Your task to perform on an android device: Search for 35 best books of all time Image 0: 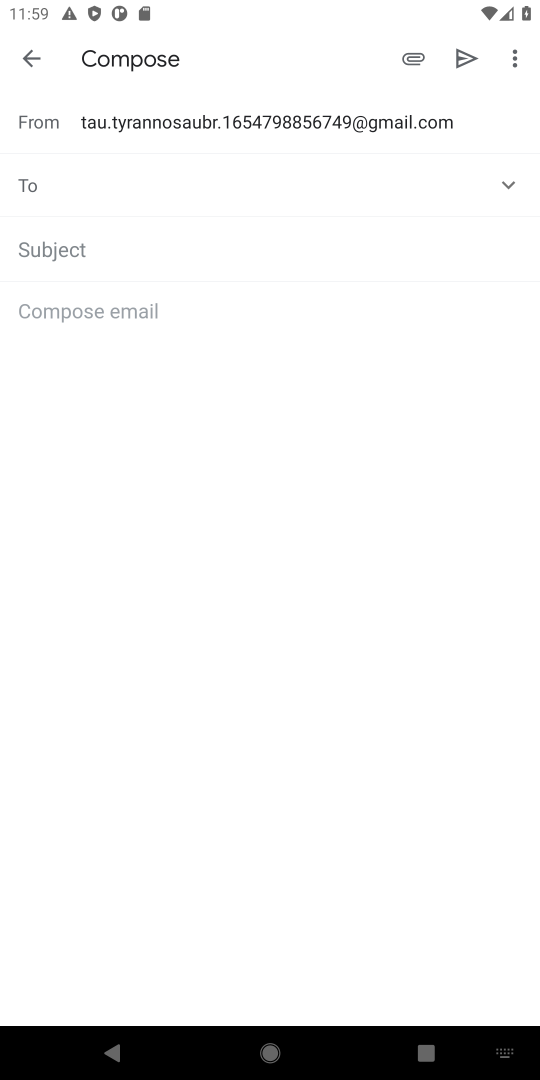
Step 0: press home button
Your task to perform on an android device: Search for 35 best books of all time Image 1: 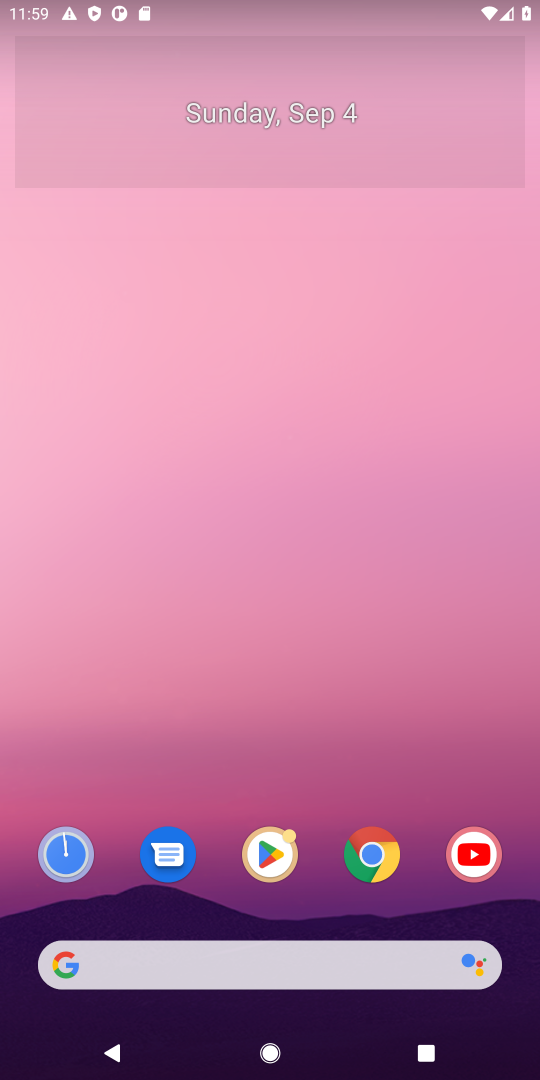
Step 1: click (295, 964)
Your task to perform on an android device: Search for 35 best books of all time Image 2: 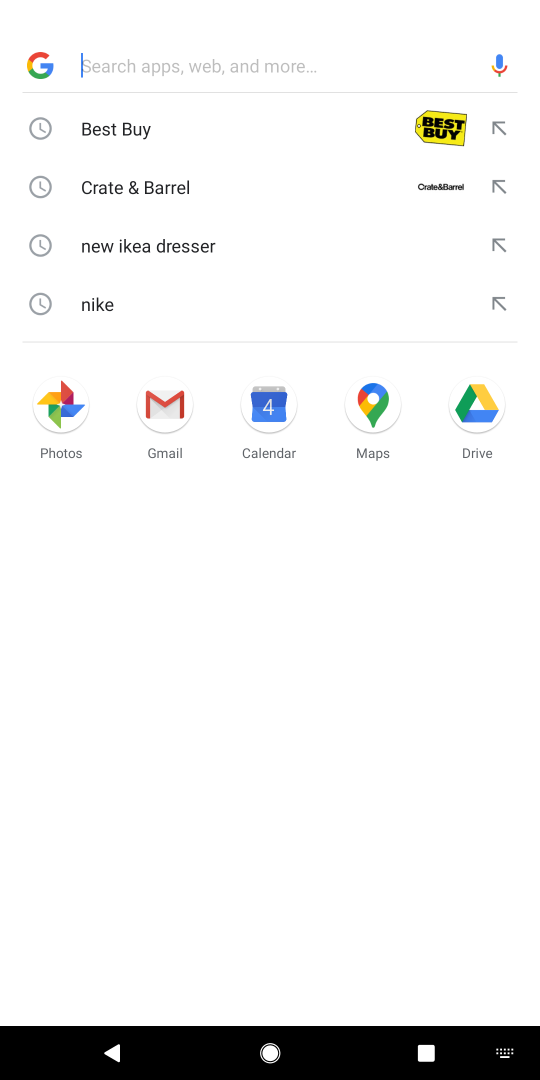
Step 2: type "35 best books of all times"
Your task to perform on an android device: Search for 35 best books of all time Image 3: 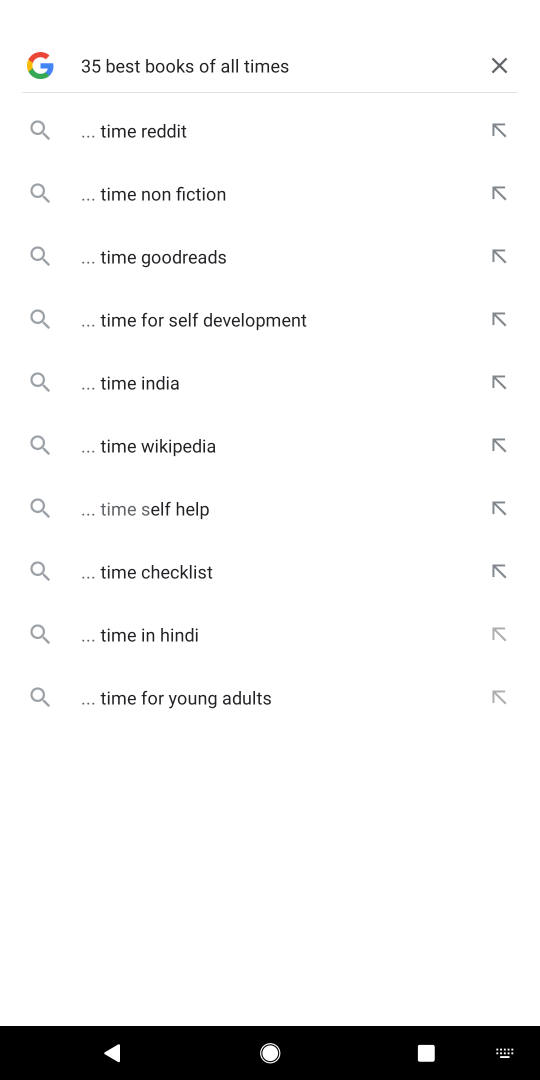
Step 3: press enter
Your task to perform on an android device: Search for 35 best books of all time Image 4: 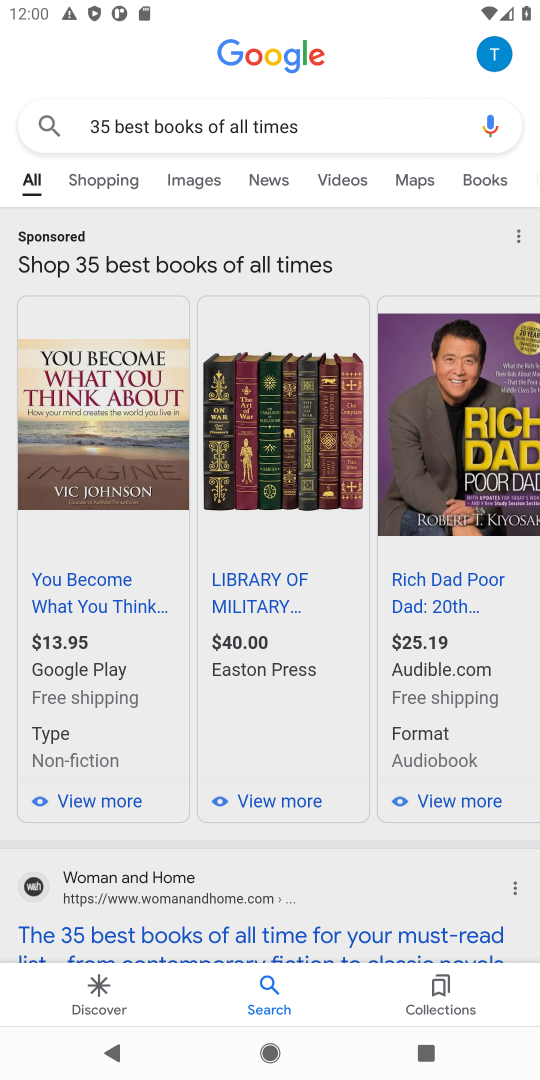
Step 4: drag from (397, 859) to (413, 499)
Your task to perform on an android device: Search for 35 best books of all time Image 5: 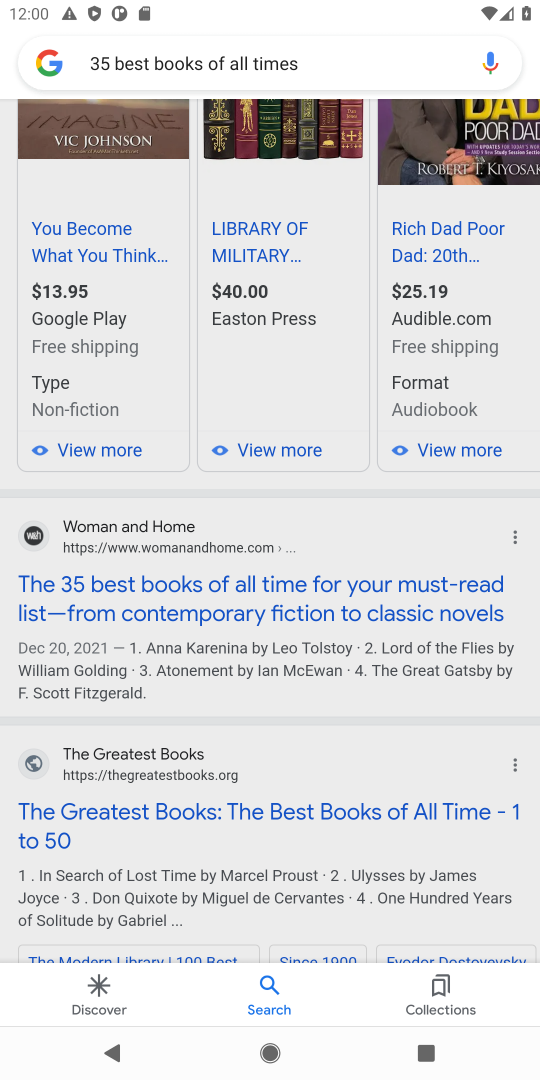
Step 5: click (229, 579)
Your task to perform on an android device: Search for 35 best books of all time Image 6: 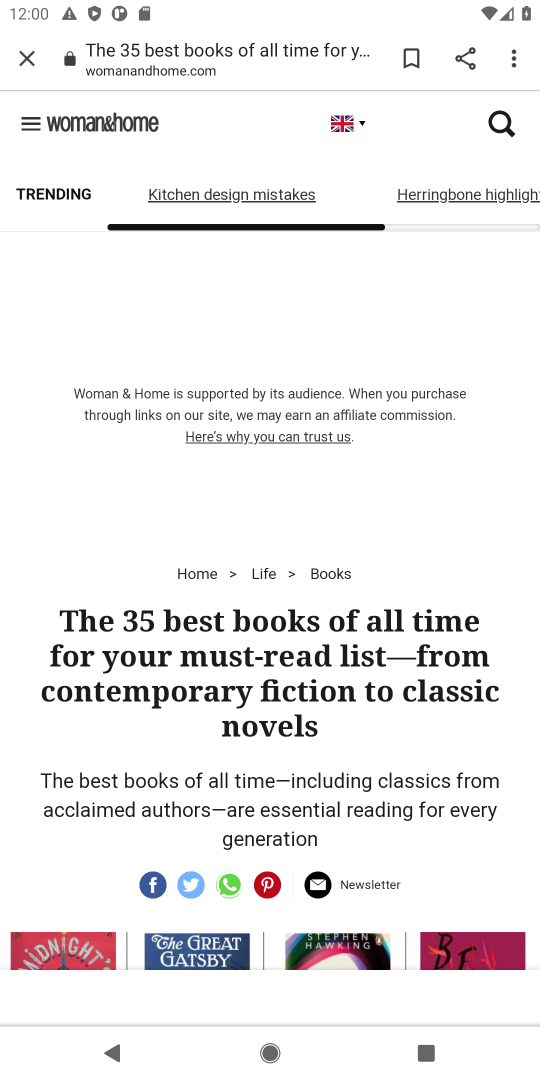
Step 6: task complete